Your task to perform on an android device: change notification settings in the gmail app Image 0: 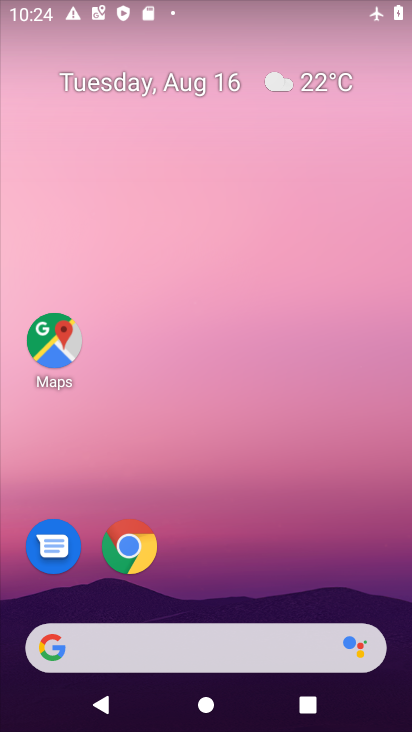
Step 0: drag from (235, 539) to (336, 0)
Your task to perform on an android device: change notification settings in the gmail app Image 1: 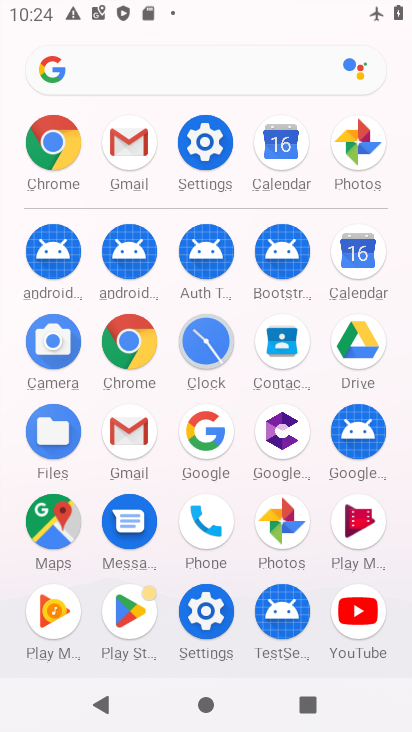
Step 1: click (135, 147)
Your task to perform on an android device: change notification settings in the gmail app Image 2: 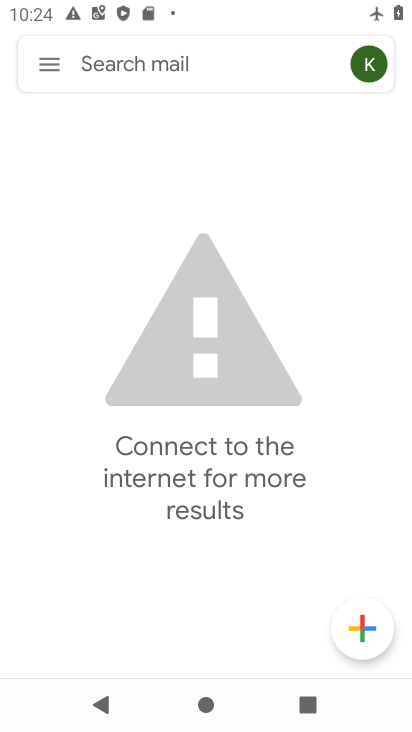
Step 2: click (52, 65)
Your task to perform on an android device: change notification settings in the gmail app Image 3: 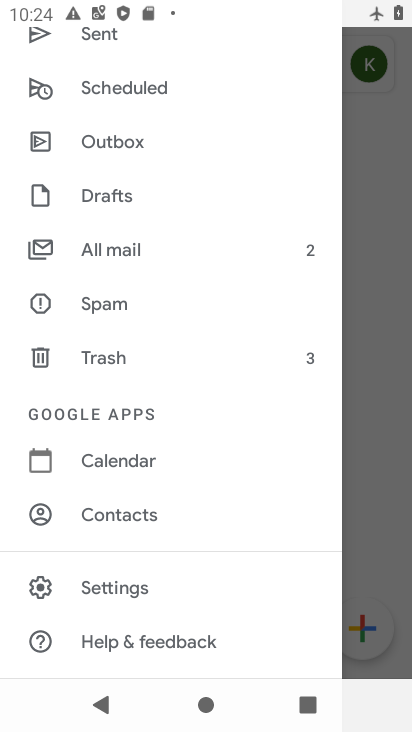
Step 3: click (122, 575)
Your task to perform on an android device: change notification settings in the gmail app Image 4: 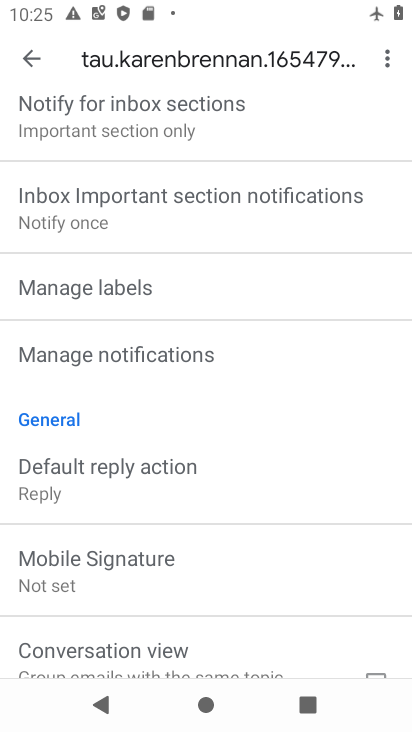
Step 4: click (205, 589)
Your task to perform on an android device: change notification settings in the gmail app Image 5: 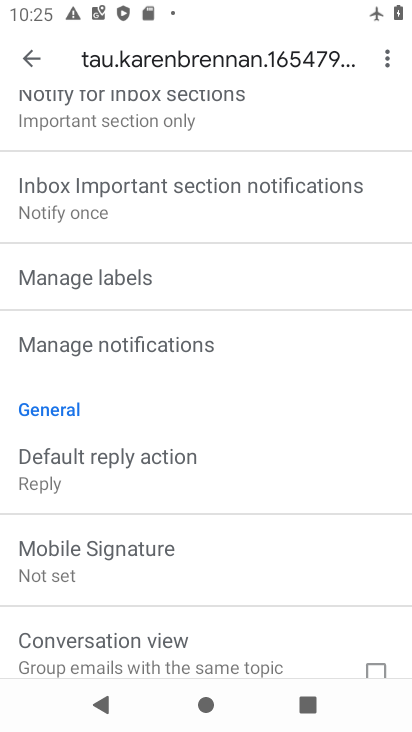
Step 5: click (213, 349)
Your task to perform on an android device: change notification settings in the gmail app Image 6: 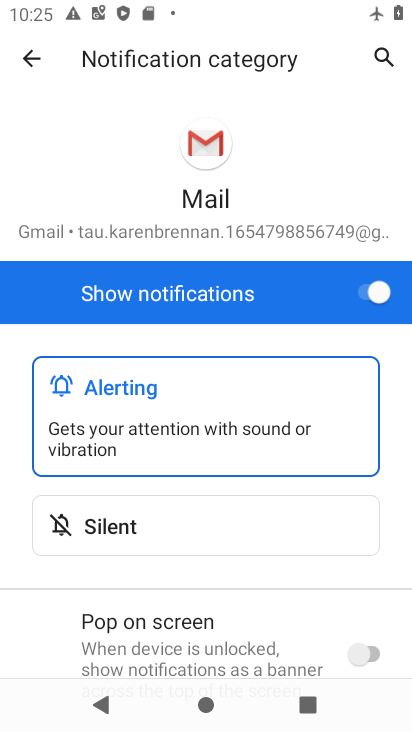
Step 6: click (369, 283)
Your task to perform on an android device: change notification settings in the gmail app Image 7: 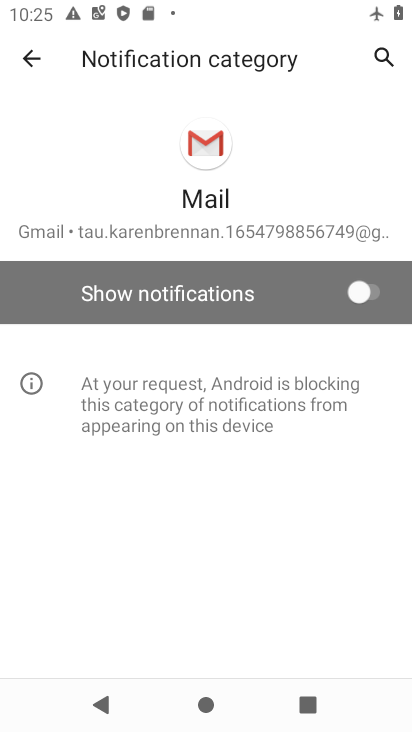
Step 7: task complete